Your task to perform on an android device: Go to ESPN.com Image 0: 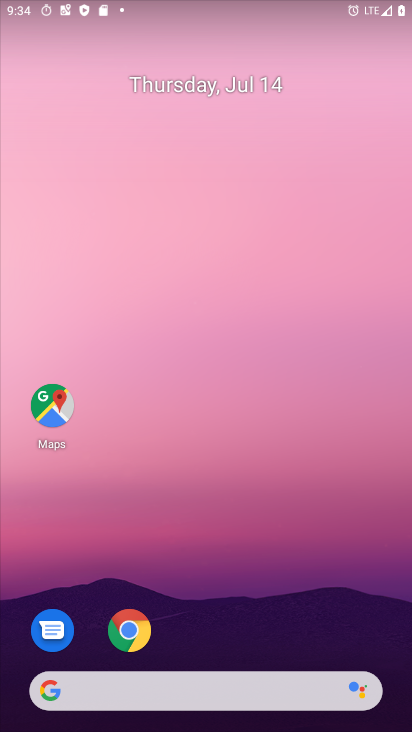
Step 0: click (130, 630)
Your task to perform on an android device: Go to ESPN.com Image 1: 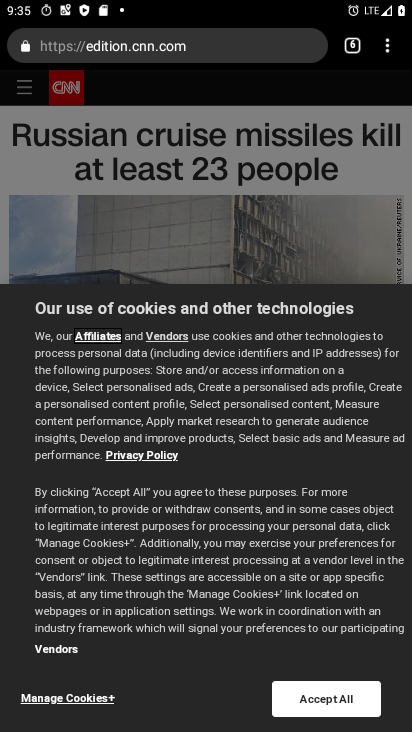
Step 1: click (386, 49)
Your task to perform on an android device: Go to ESPN.com Image 2: 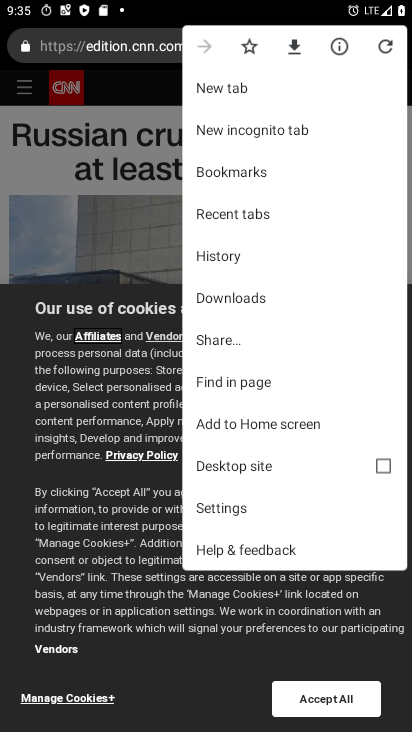
Step 2: click (226, 85)
Your task to perform on an android device: Go to ESPN.com Image 3: 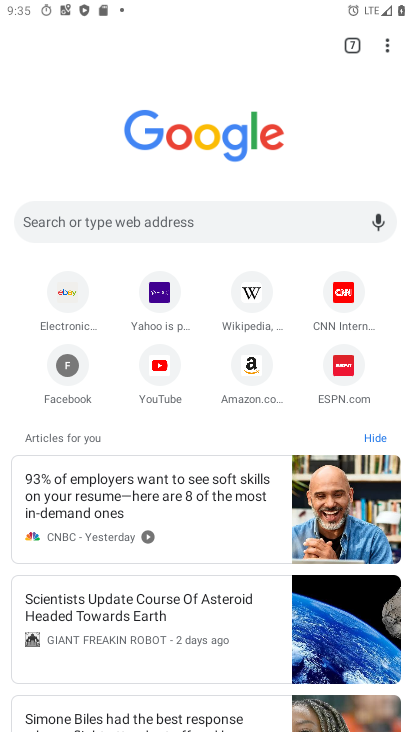
Step 3: click (340, 367)
Your task to perform on an android device: Go to ESPN.com Image 4: 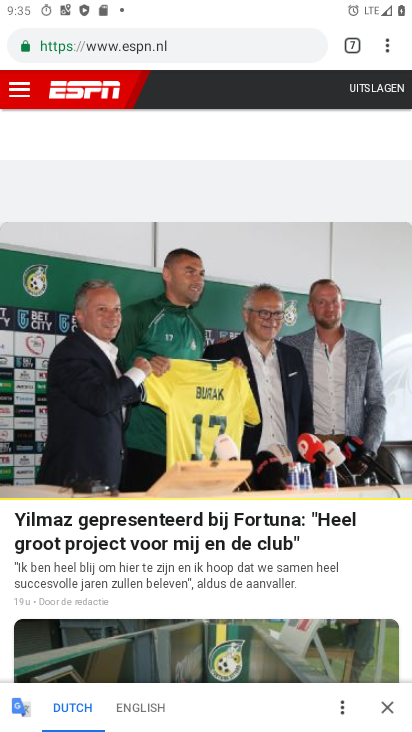
Step 4: task complete